Your task to perform on an android device: open chrome and create a bookmark for the current page Image 0: 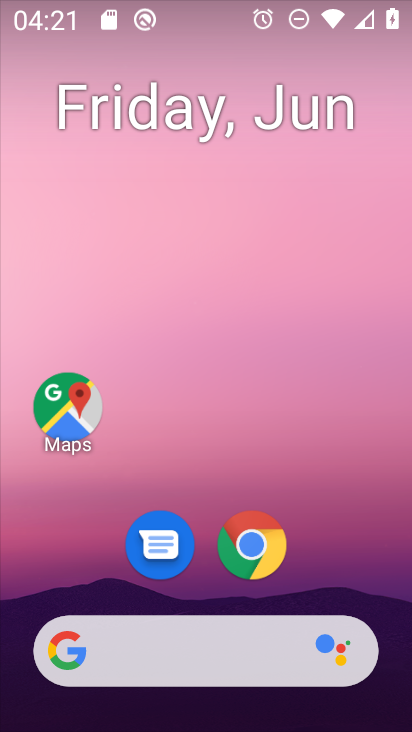
Step 0: click (257, 545)
Your task to perform on an android device: open chrome and create a bookmark for the current page Image 1: 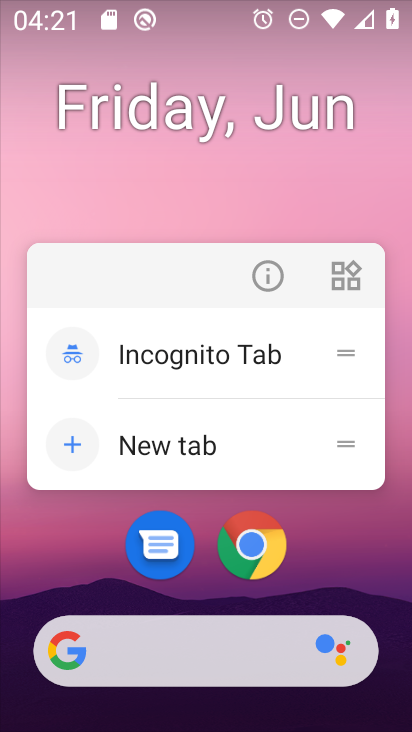
Step 1: click (256, 542)
Your task to perform on an android device: open chrome and create a bookmark for the current page Image 2: 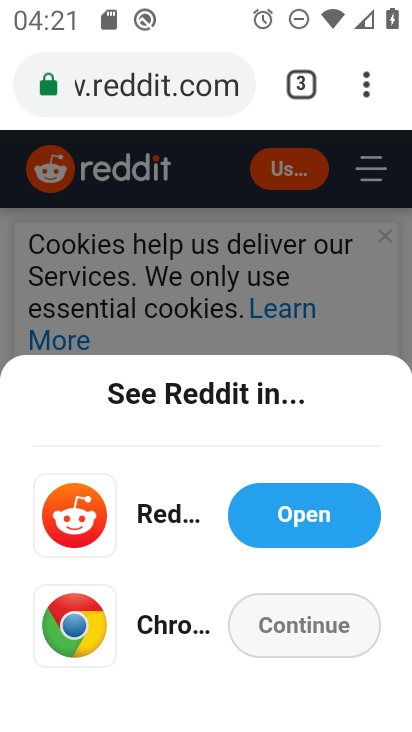
Step 2: click (375, 80)
Your task to perform on an android device: open chrome and create a bookmark for the current page Image 3: 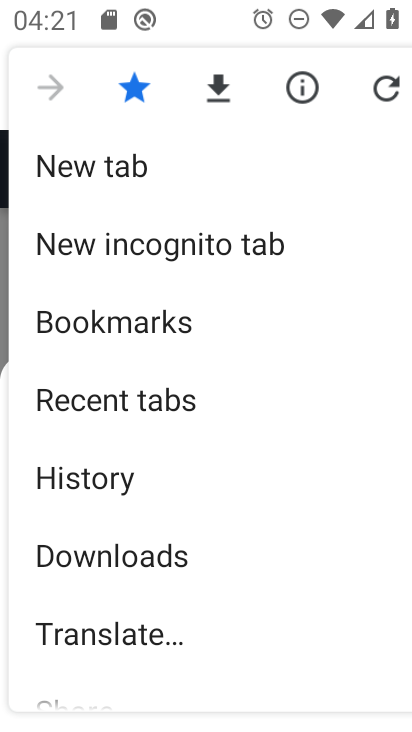
Step 3: task complete